Your task to perform on an android device: all mails in gmail Image 0: 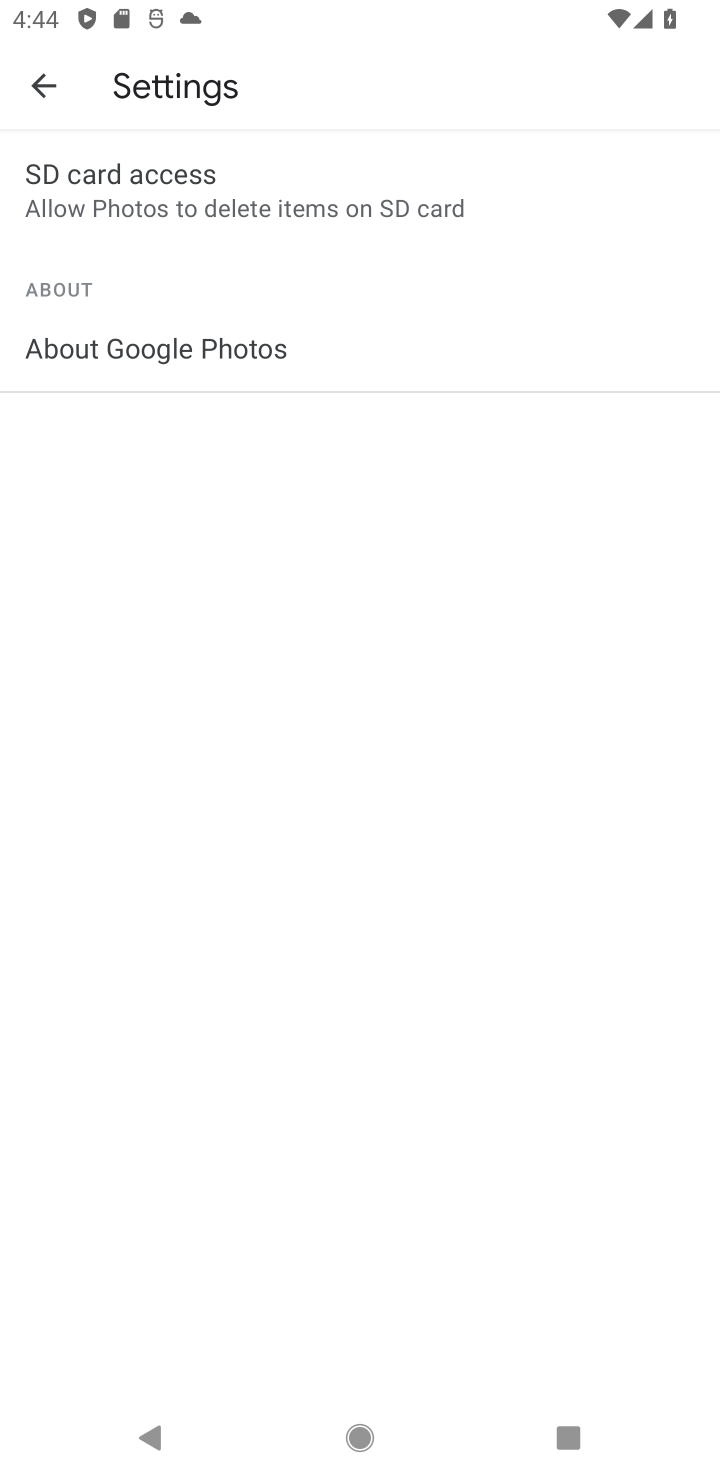
Step 0: press home button
Your task to perform on an android device: all mails in gmail Image 1: 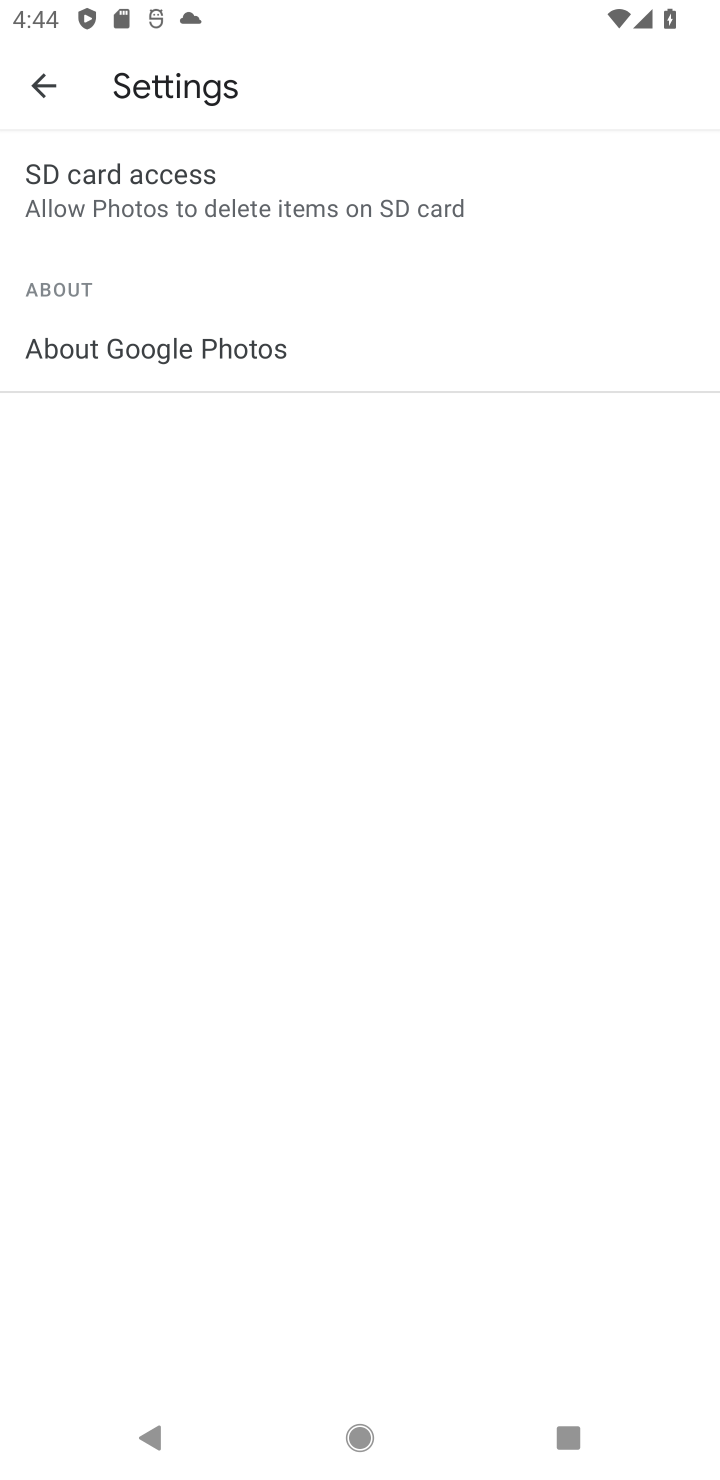
Step 1: press home button
Your task to perform on an android device: all mails in gmail Image 2: 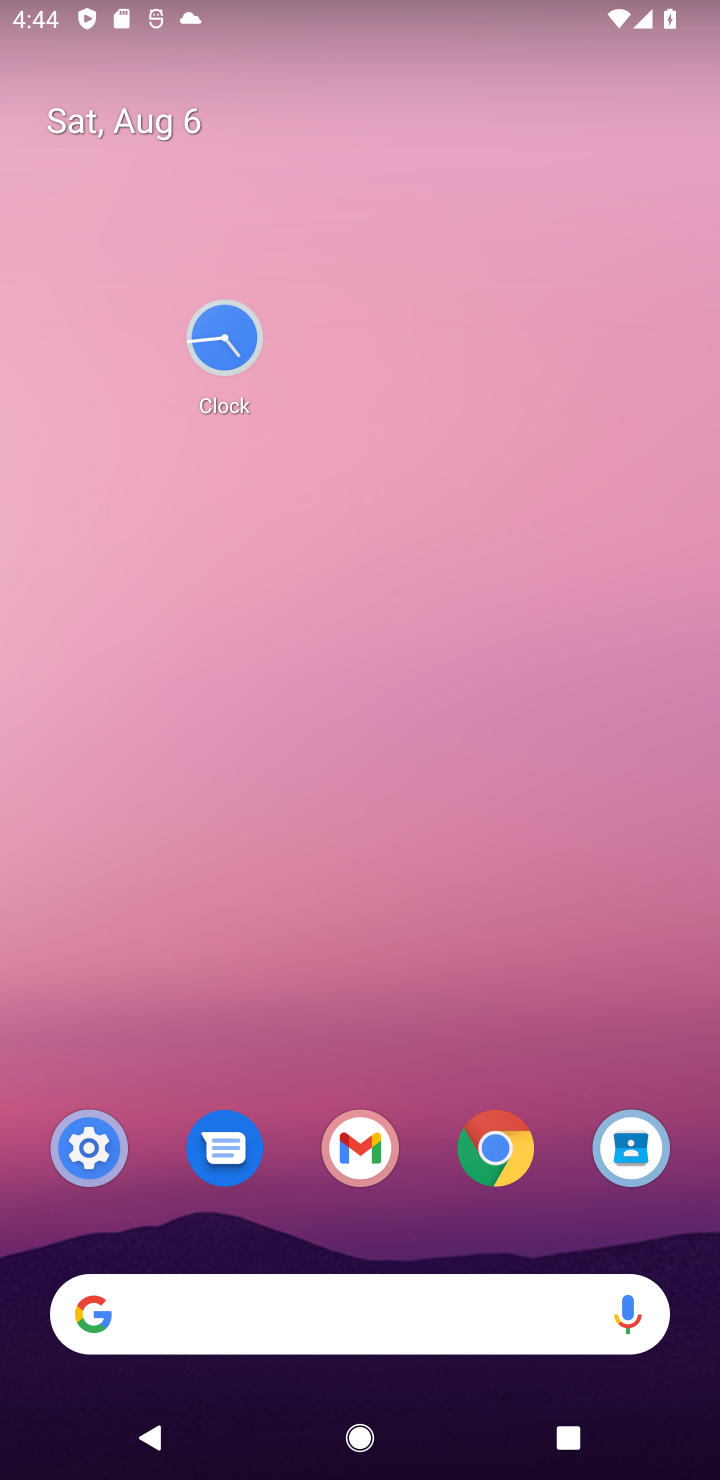
Step 2: drag from (329, 1208) to (447, 401)
Your task to perform on an android device: all mails in gmail Image 3: 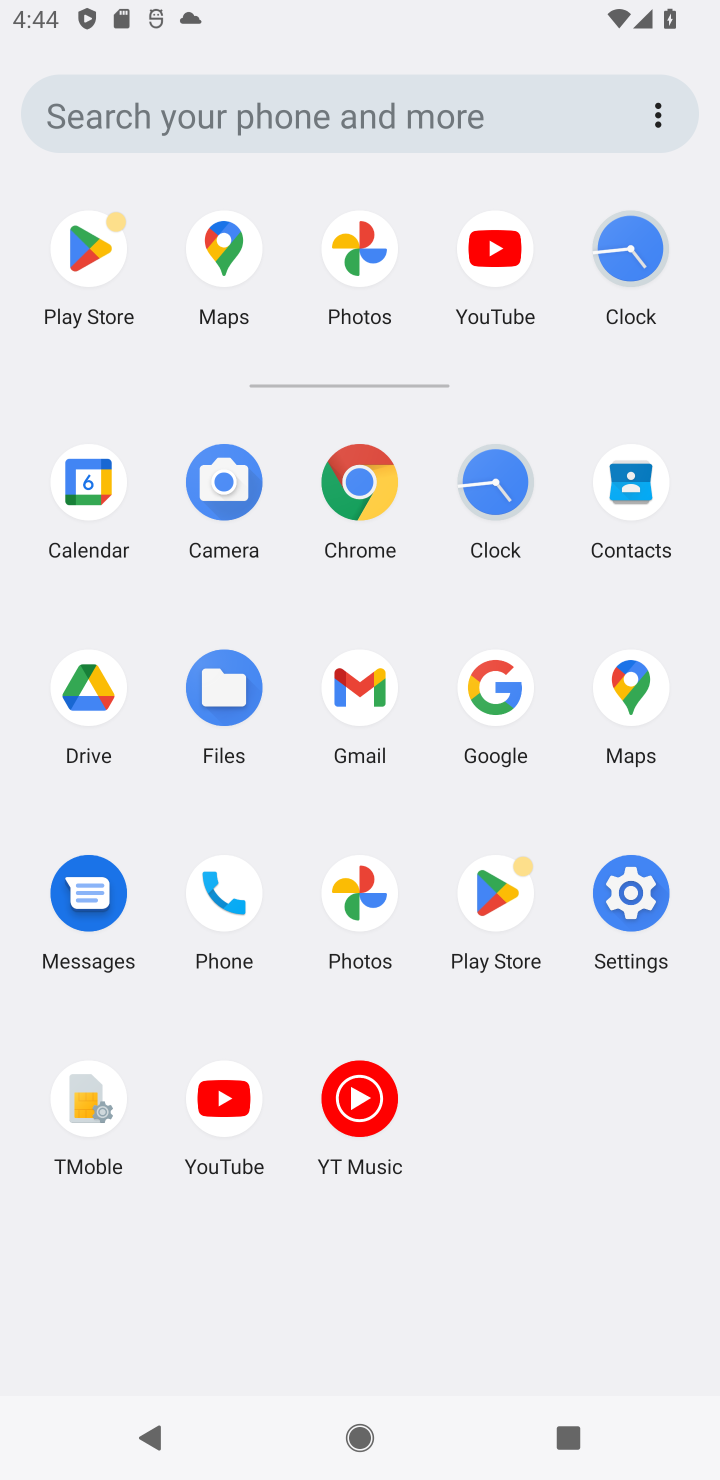
Step 3: click (351, 676)
Your task to perform on an android device: all mails in gmail Image 4: 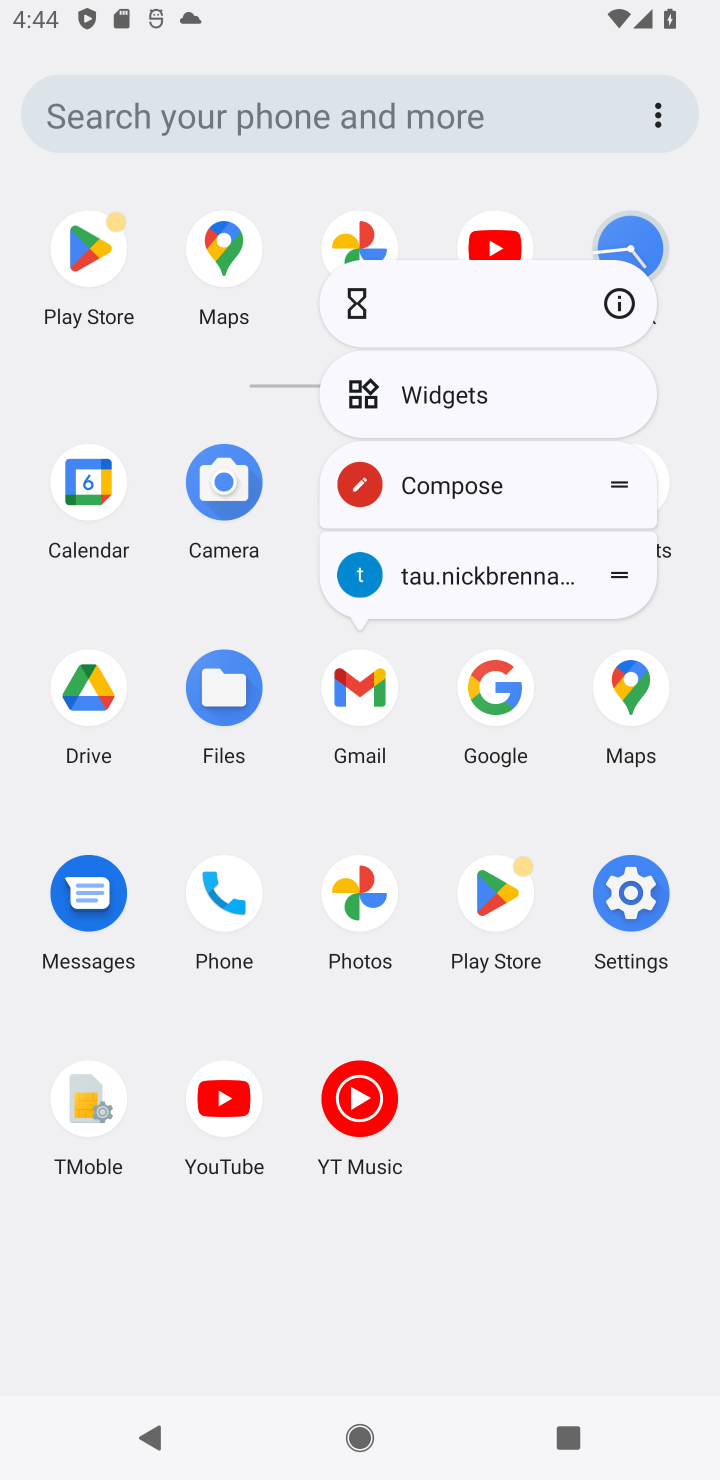
Step 4: click (619, 319)
Your task to perform on an android device: all mails in gmail Image 5: 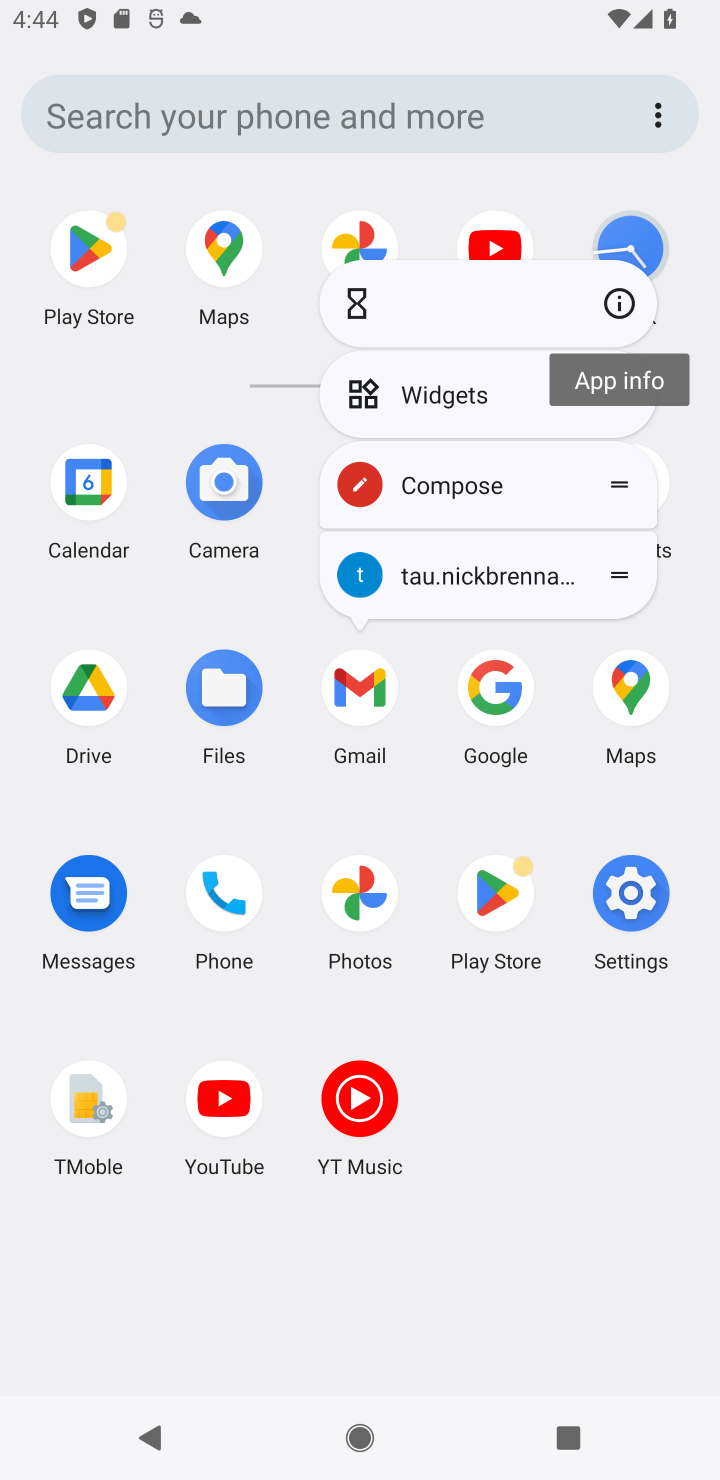
Step 5: click (617, 309)
Your task to perform on an android device: all mails in gmail Image 6: 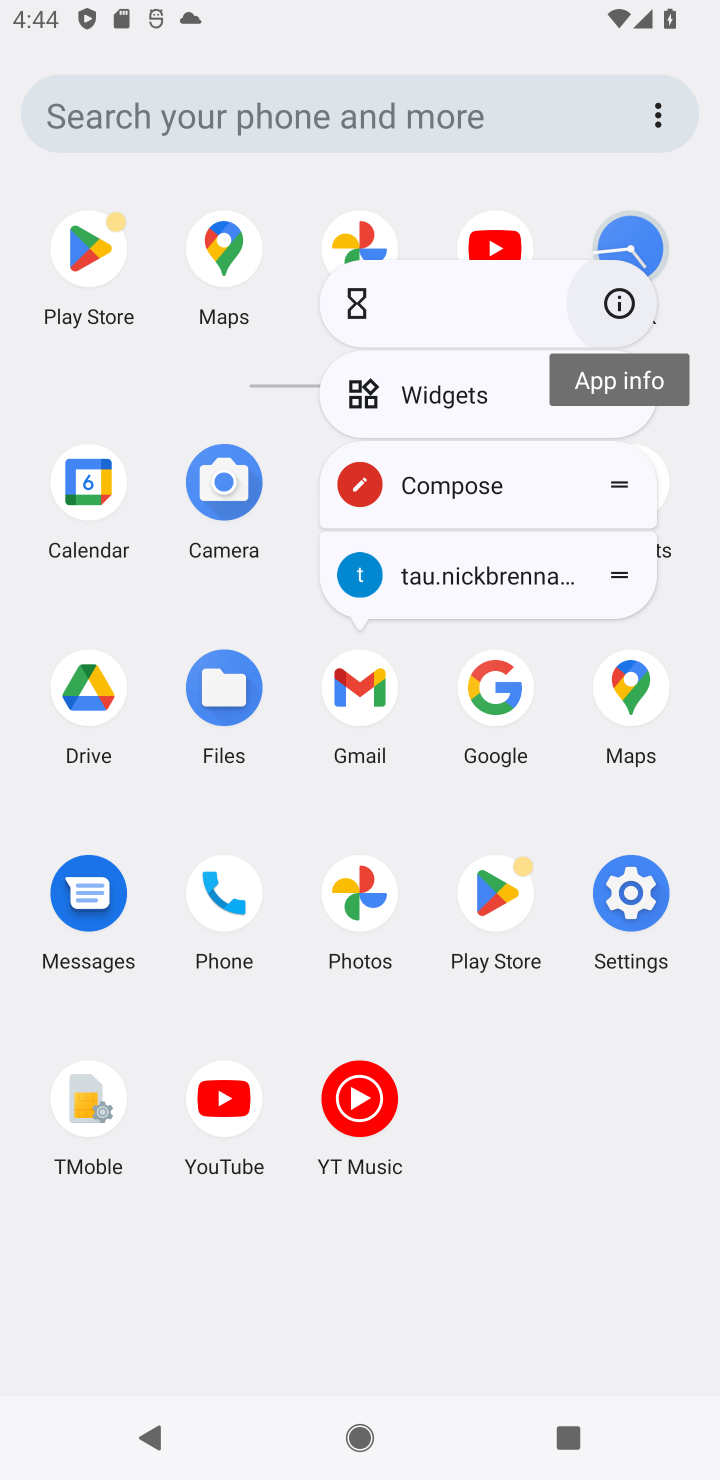
Step 6: click (617, 309)
Your task to perform on an android device: all mails in gmail Image 7: 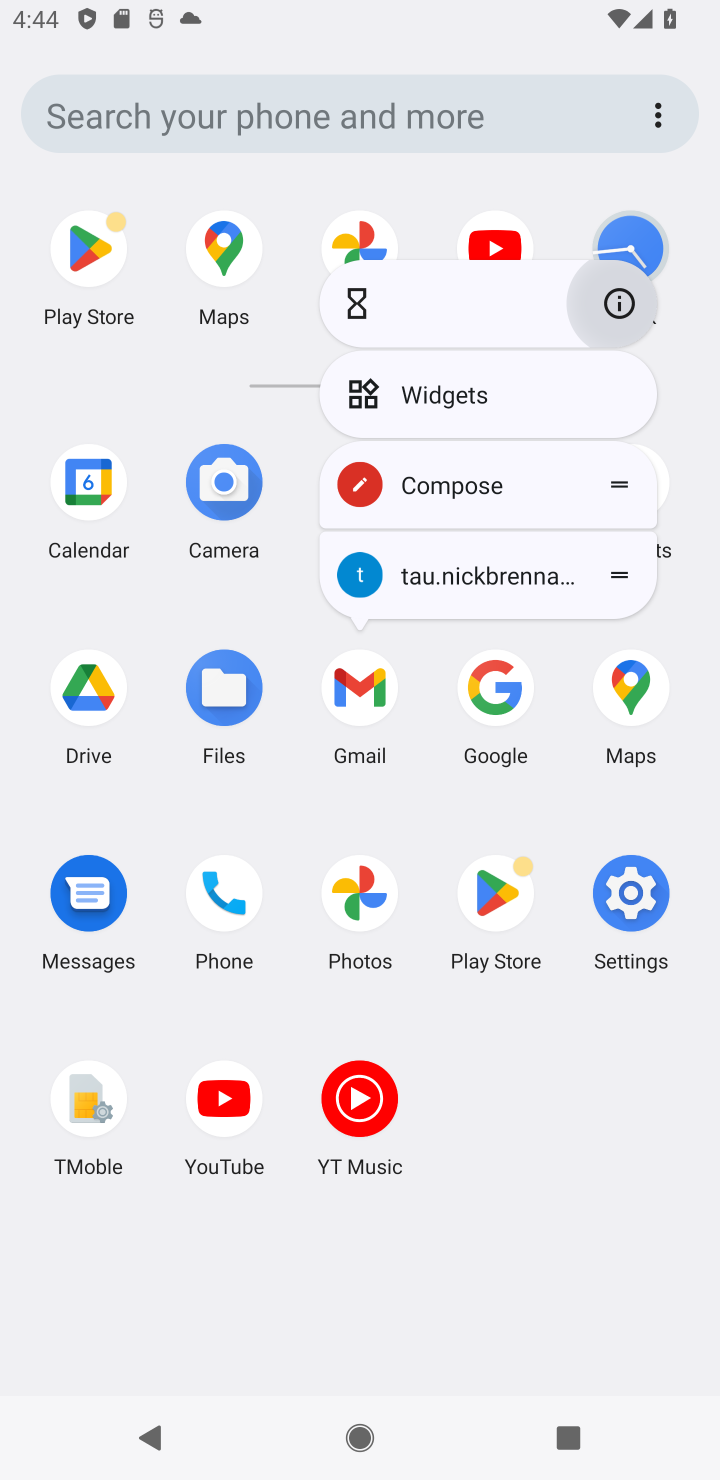
Step 7: click (321, 700)
Your task to perform on an android device: all mails in gmail Image 8: 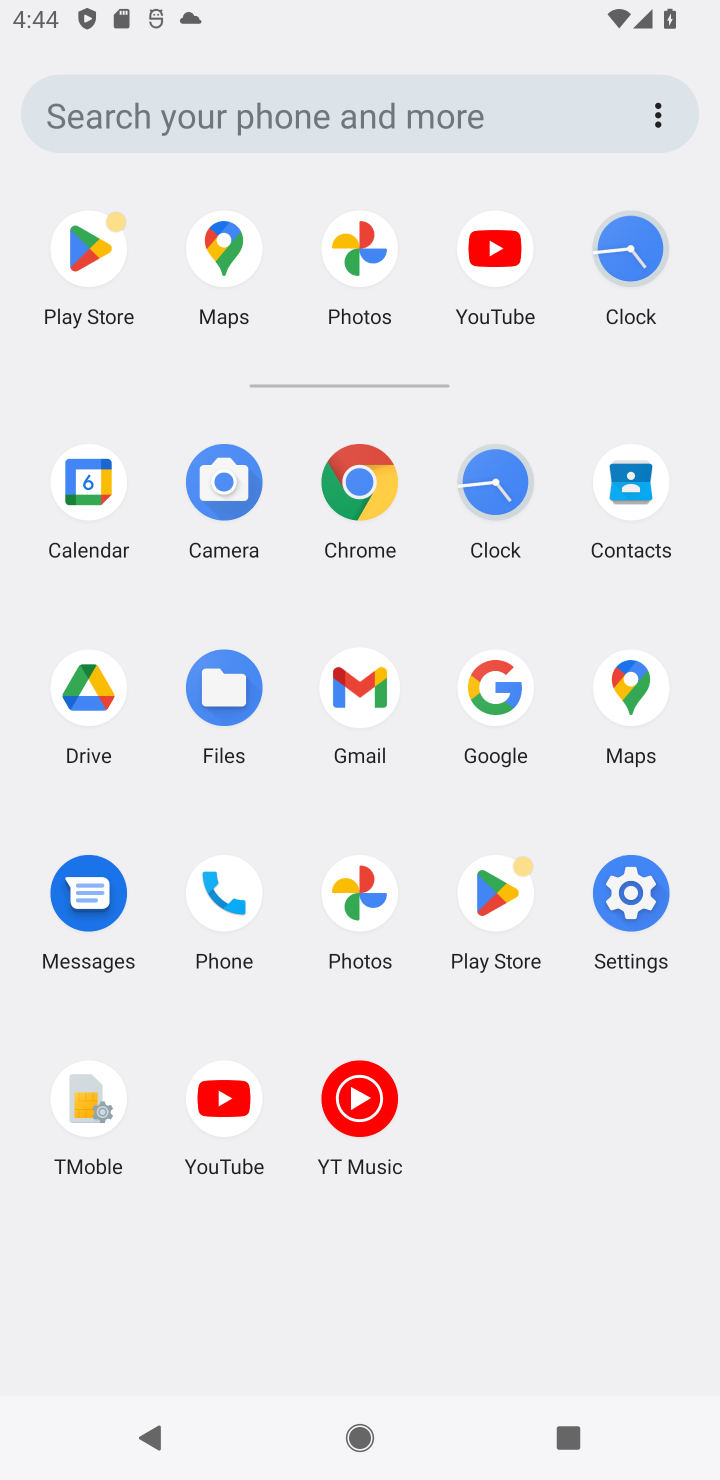
Step 8: click (355, 678)
Your task to perform on an android device: all mails in gmail Image 9: 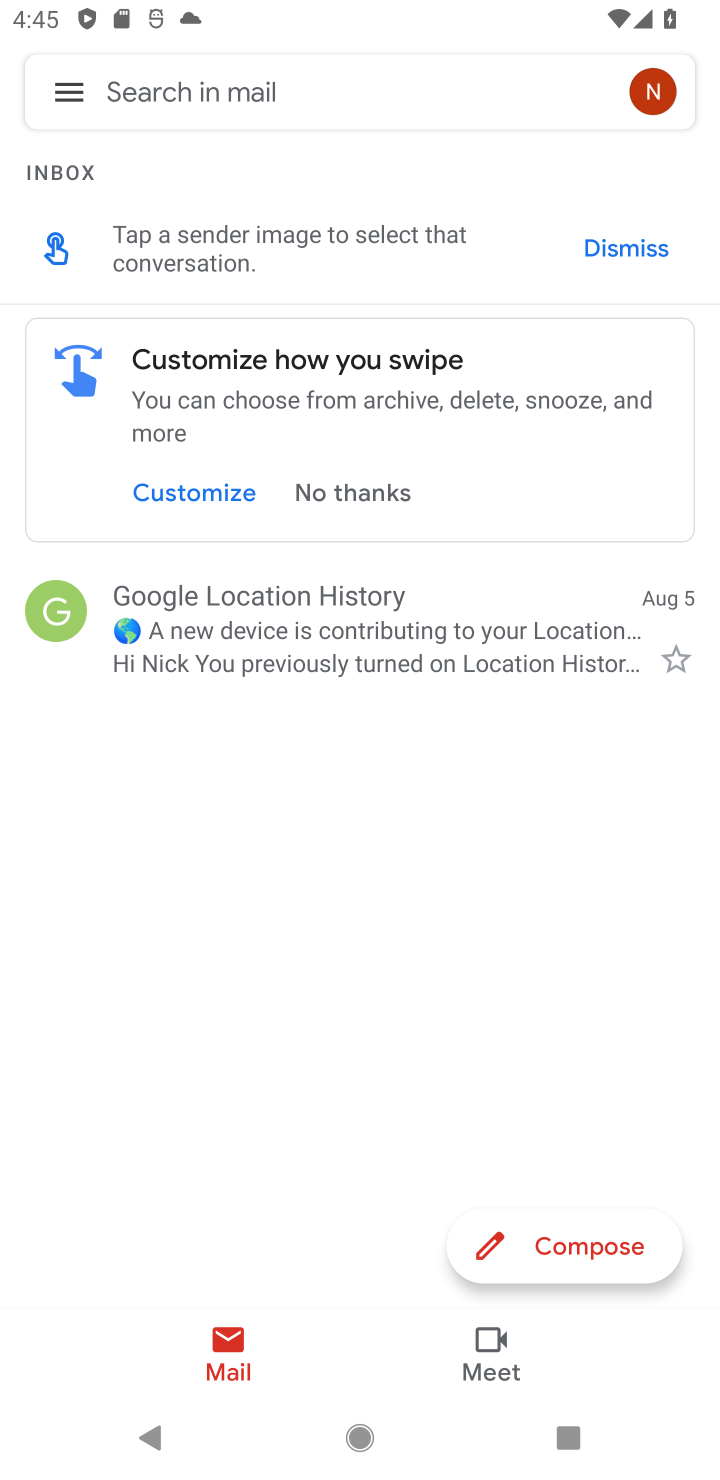
Step 9: click (59, 95)
Your task to perform on an android device: all mails in gmail Image 10: 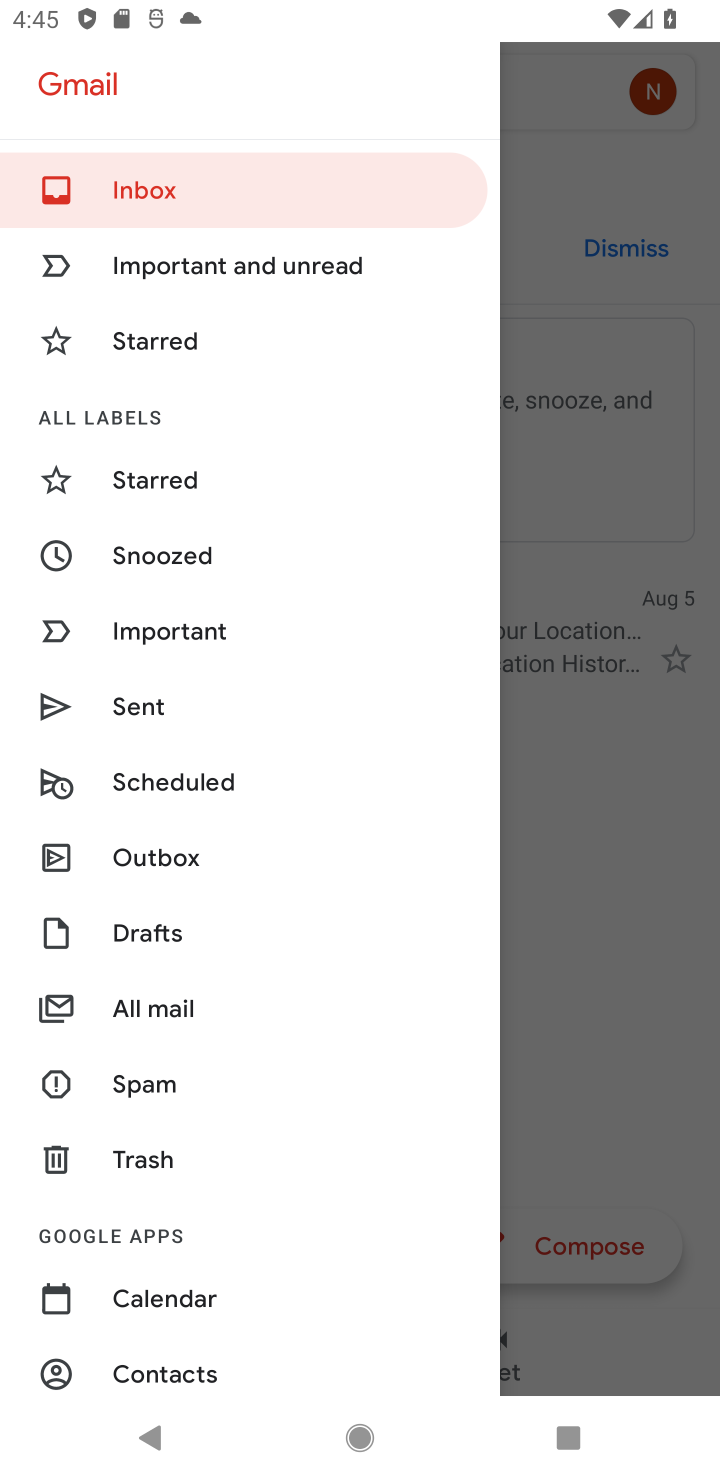
Step 10: click (127, 1007)
Your task to perform on an android device: all mails in gmail Image 11: 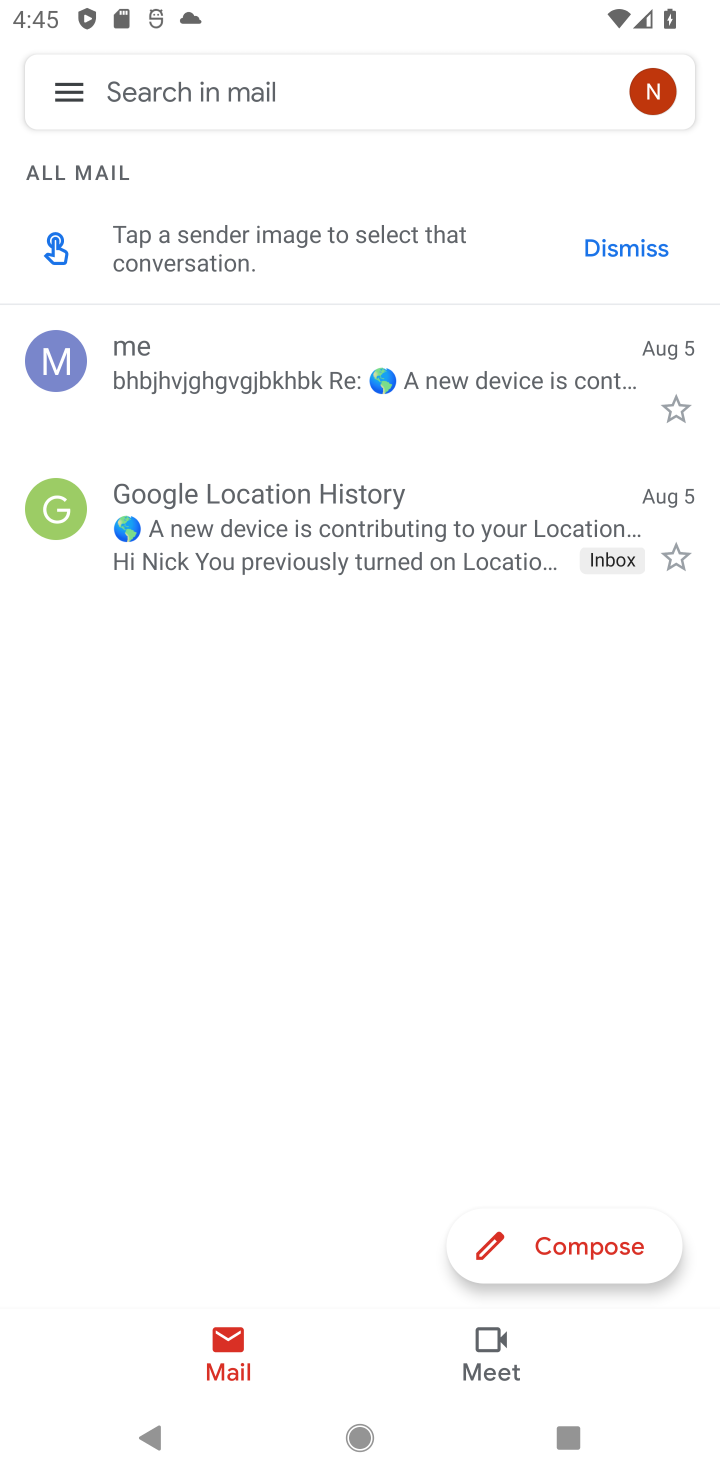
Step 11: drag from (363, 1118) to (359, 620)
Your task to perform on an android device: all mails in gmail Image 12: 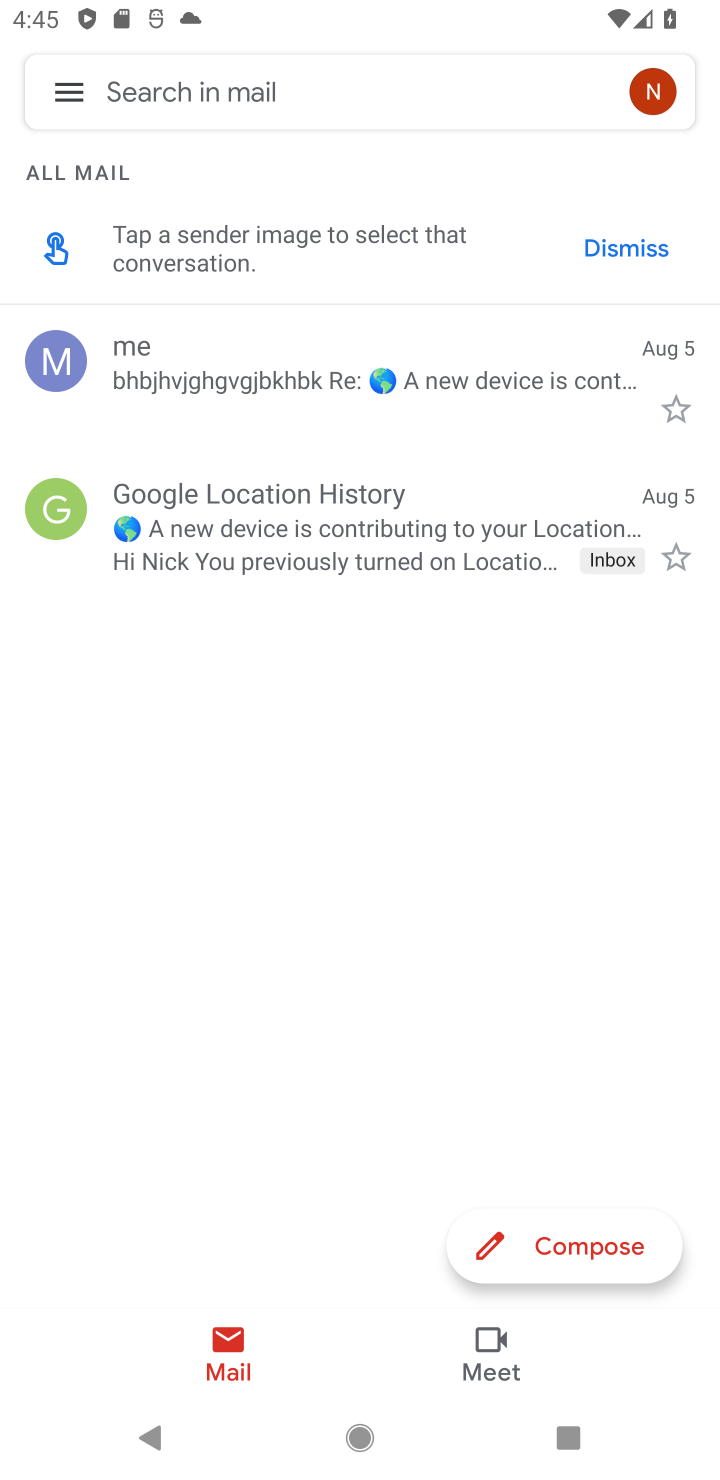
Step 12: click (59, 99)
Your task to perform on an android device: all mails in gmail Image 13: 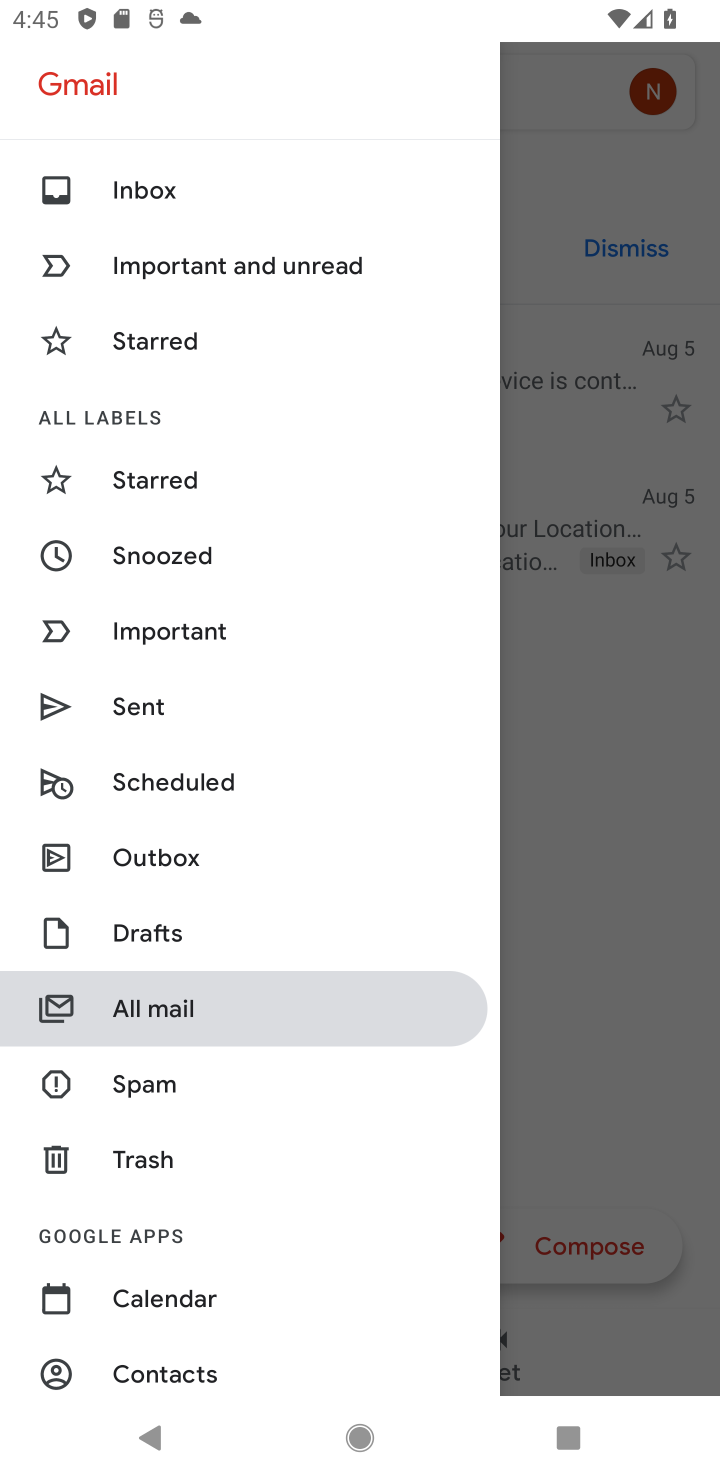
Step 13: click (144, 1023)
Your task to perform on an android device: all mails in gmail Image 14: 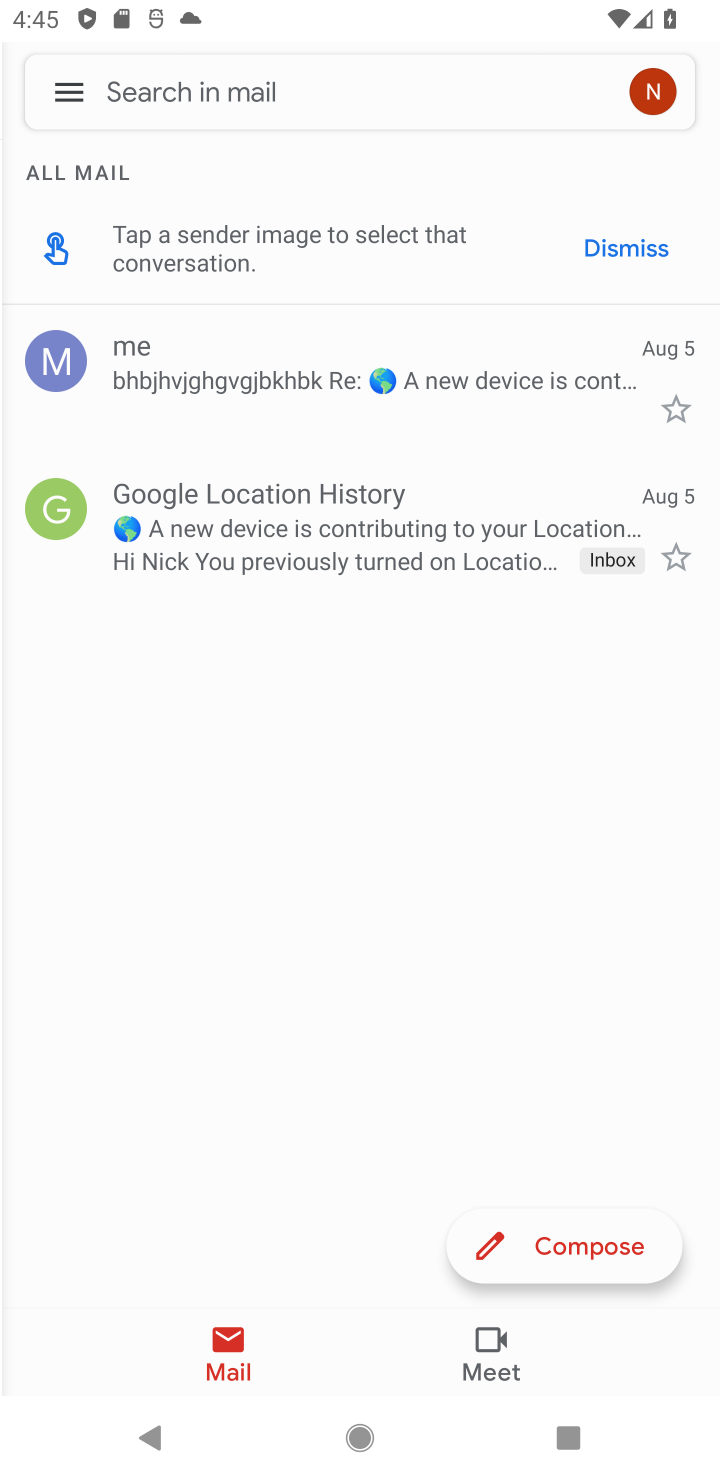
Step 14: task complete